Your task to perform on an android device: Open Youtube and go to "Your channel" Image 0: 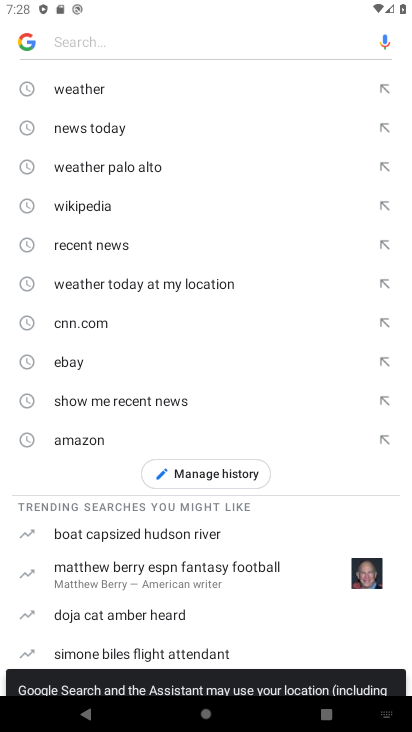
Step 0: press home button
Your task to perform on an android device: Open Youtube and go to "Your channel" Image 1: 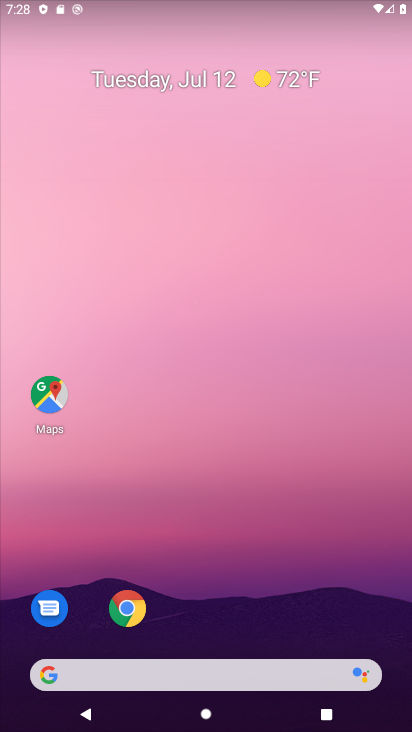
Step 1: drag from (349, 615) to (361, 68)
Your task to perform on an android device: Open Youtube and go to "Your channel" Image 2: 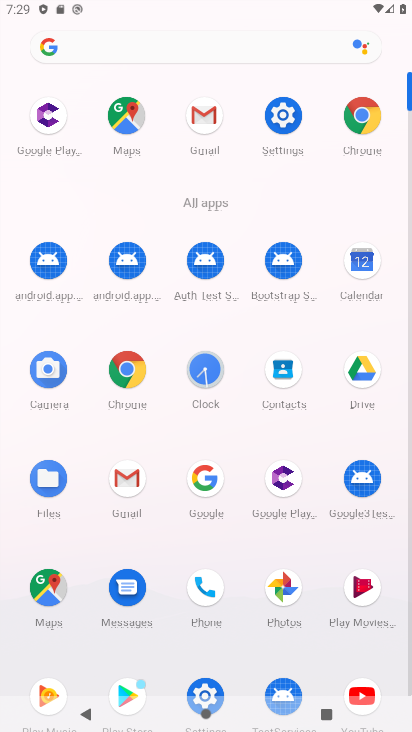
Step 2: drag from (386, 549) to (385, 358)
Your task to perform on an android device: Open Youtube and go to "Your channel" Image 3: 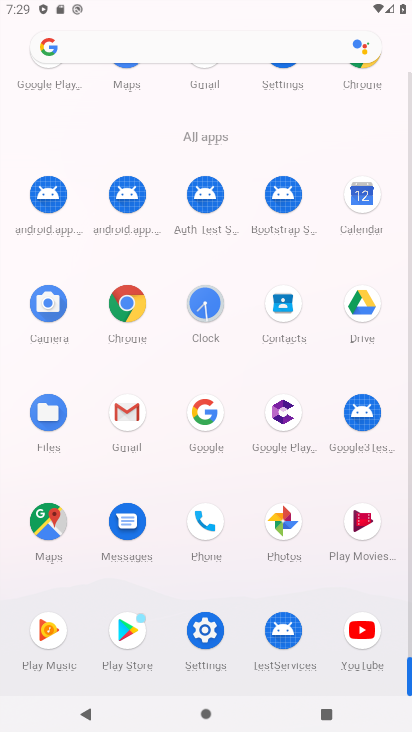
Step 3: click (359, 629)
Your task to perform on an android device: Open Youtube and go to "Your channel" Image 4: 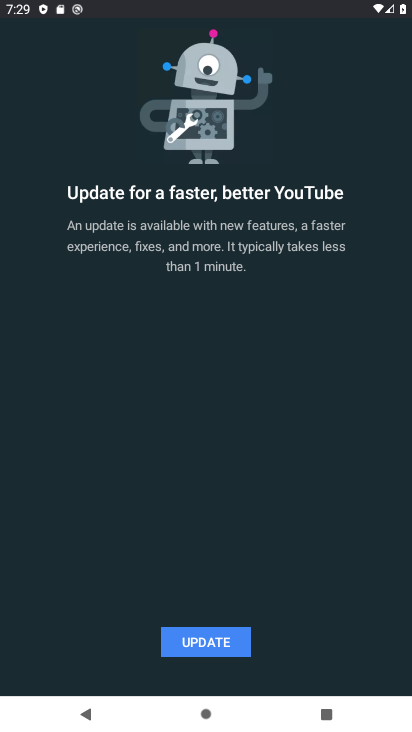
Step 4: click (231, 634)
Your task to perform on an android device: Open Youtube and go to "Your channel" Image 5: 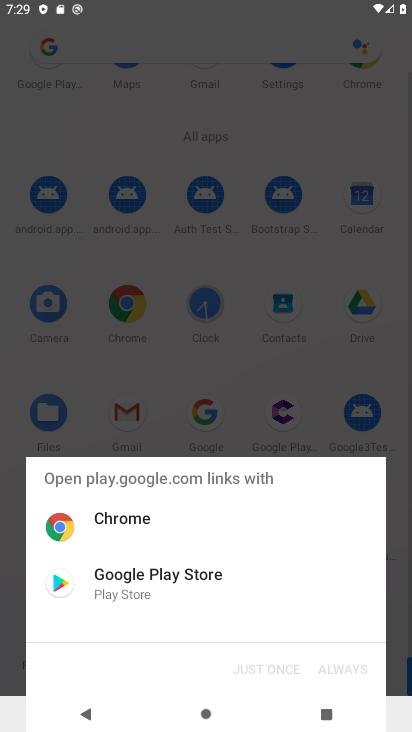
Step 5: click (163, 584)
Your task to perform on an android device: Open Youtube and go to "Your channel" Image 6: 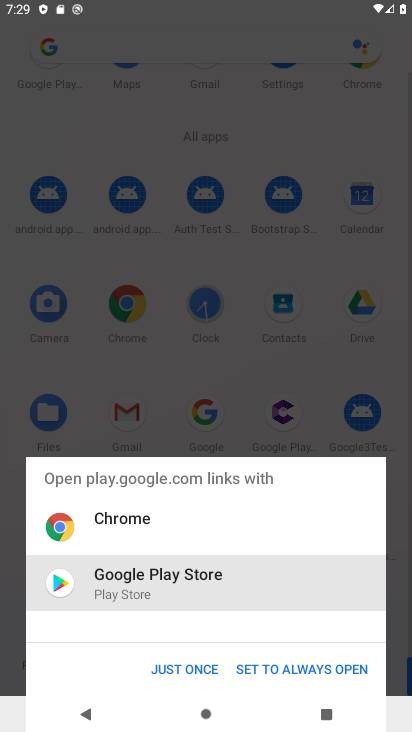
Step 6: click (185, 669)
Your task to perform on an android device: Open Youtube and go to "Your channel" Image 7: 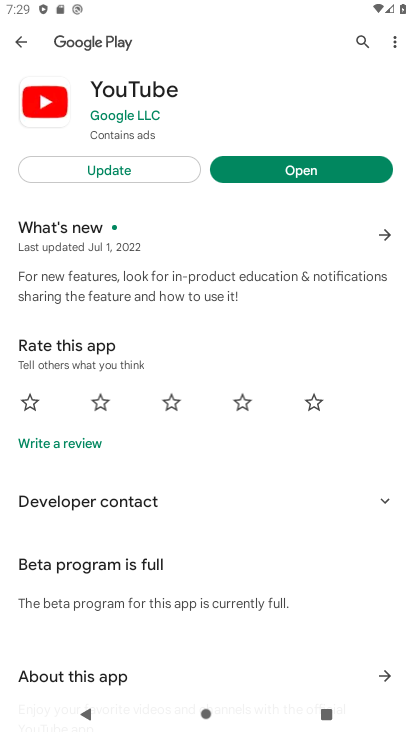
Step 7: click (129, 165)
Your task to perform on an android device: Open Youtube and go to "Your channel" Image 8: 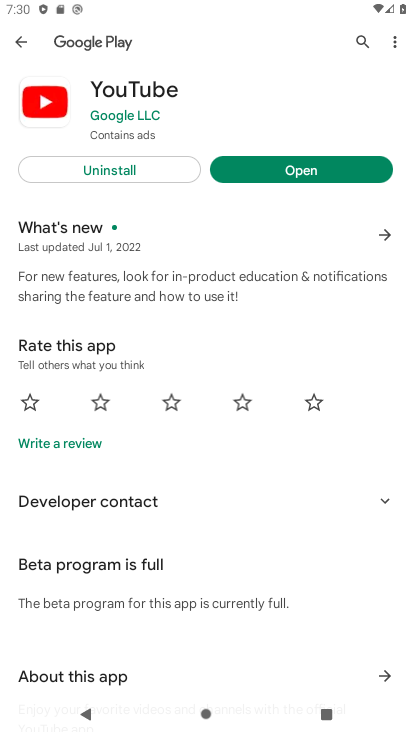
Step 8: click (356, 161)
Your task to perform on an android device: Open Youtube and go to "Your channel" Image 9: 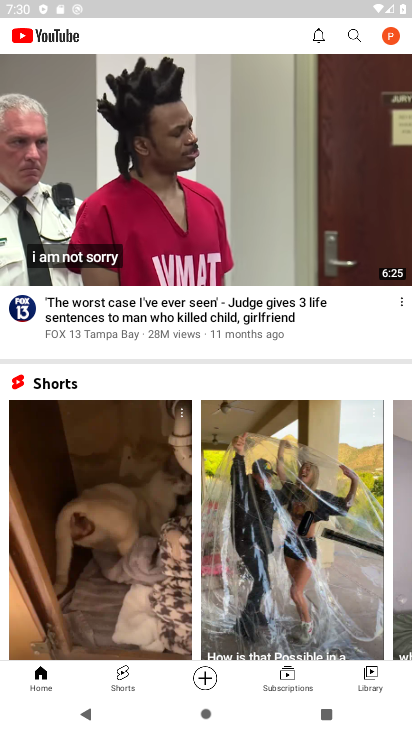
Step 9: click (391, 28)
Your task to perform on an android device: Open Youtube and go to "Your channel" Image 10: 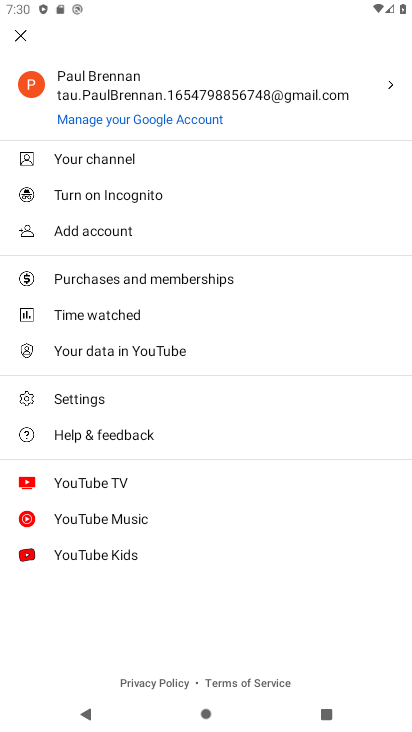
Step 10: click (185, 150)
Your task to perform on an android device: Open Youtube and go to "Your channel" Image 11: 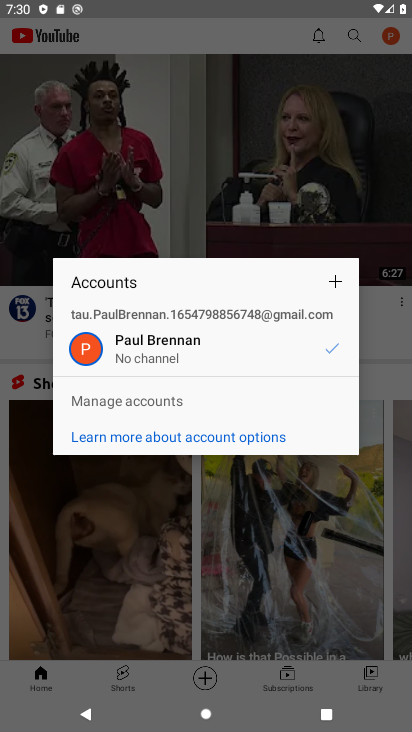
Step 11: task complete